Your task to perform on an android device: open the mobile data screen to see how much data has been used Image 0: 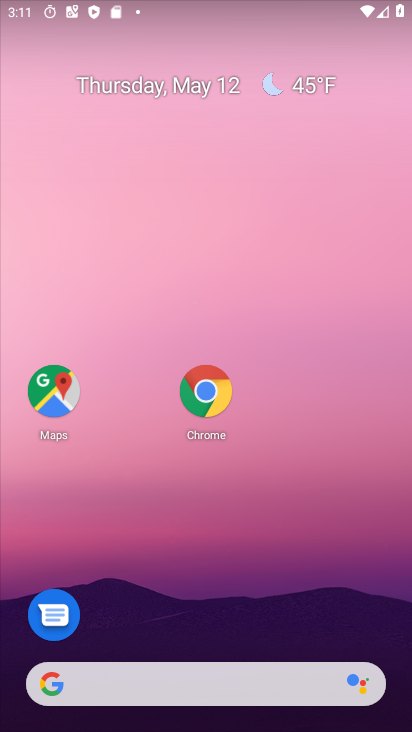
Step 0: drag from (199, 633) to (179, 100)
Your task to perform on an android device: open the mobile data screen to see how much data has been used Image 1: 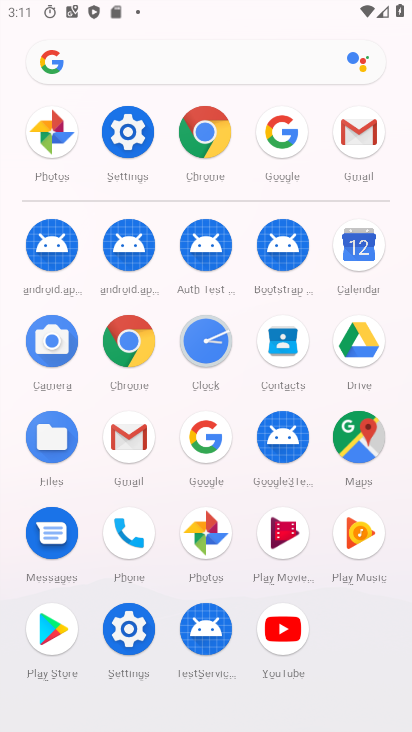
Step 1: click (126, 134)
Your task to perform on an android device: open the mobile data screen to see how much data has been used Image 2: 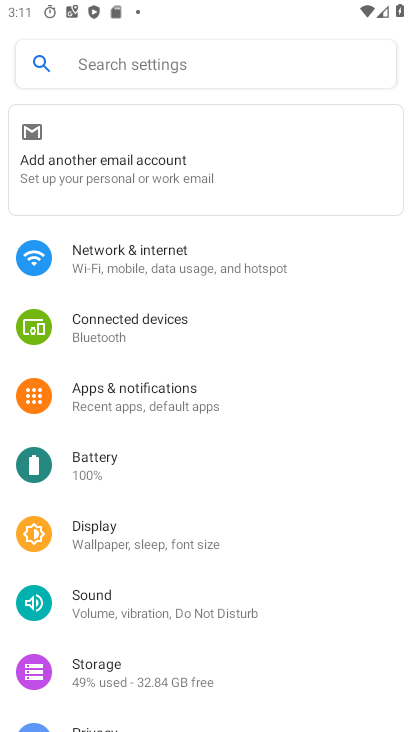
Step 2: click (210, 286)
Your task to perform on an android device: open the mobile data screen to see how much data has been used Image 3: 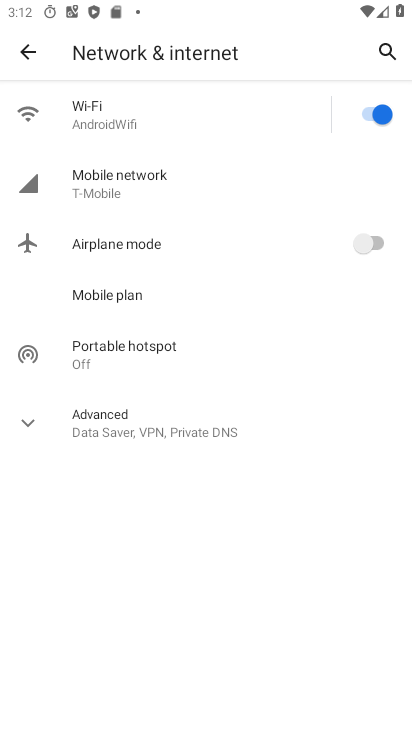
Step 3: click (130, 187)
Your task to perform on an android device: open the mobile data screen to see how much data has been used Image 4: 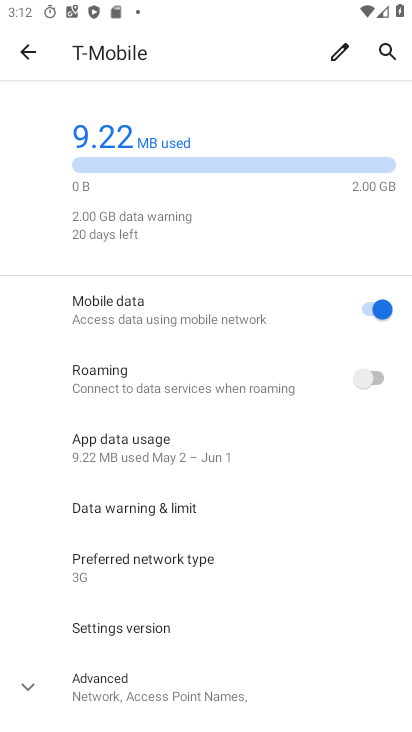
Step 4: task complete